Your task to perform on an android device: turn off javascript in the chrome app Image 0: 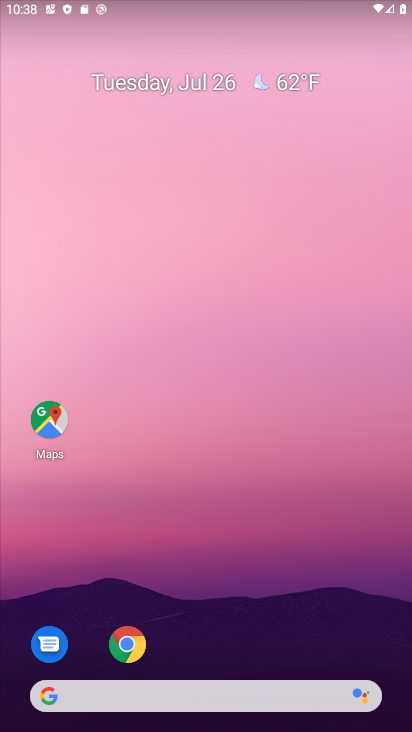
Step 0: click (126, 651)
Your task to perform on an android device: turn off javascript in the chrome app Image 1: 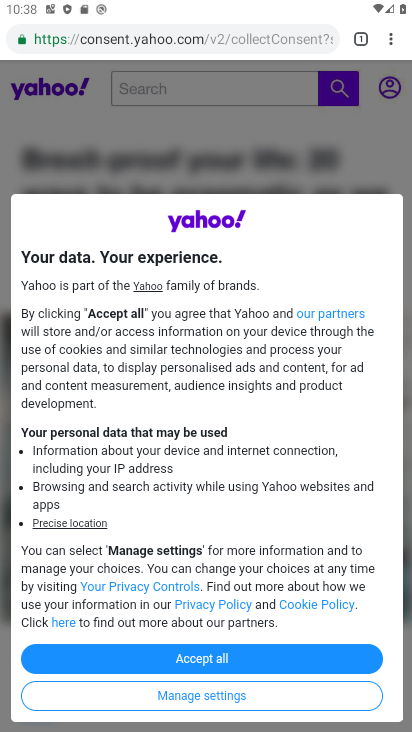
Step 1: click (396, 39)
Your task to perform on an android device: turn off javascript in the chrome app Image 2: 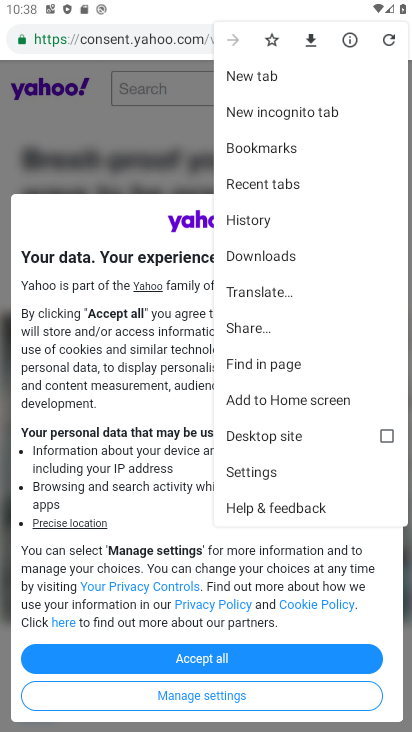
Step 2: click (257, 478)
Your task to perform on an android device: turn off javascript in the chrome app Image 3: 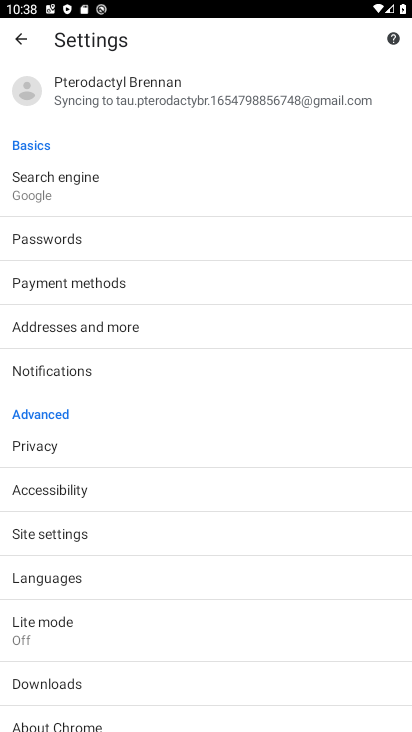
Step 3: click (116, 533)
Your task to perform on an android device: turn off javascript in the chrome app Image 4: 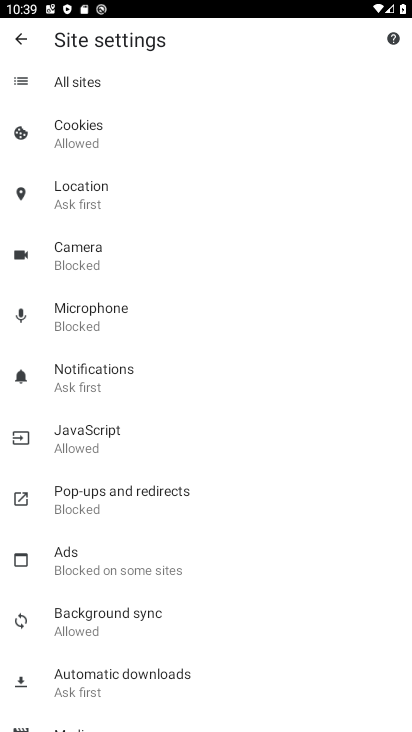
Step 4: click (120, 444)
Your task to perform on an android device: turn off javascript in the chrome app Image 5: 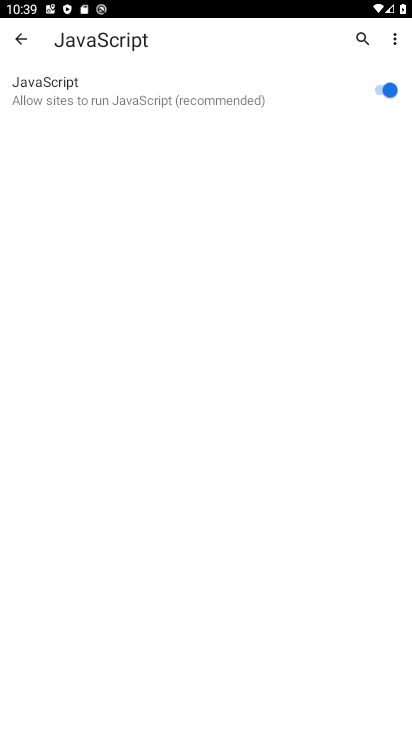
Step 5: click (391, 85)
Your task to perform on an android device: turn off javascript in the chrome app Image 6: 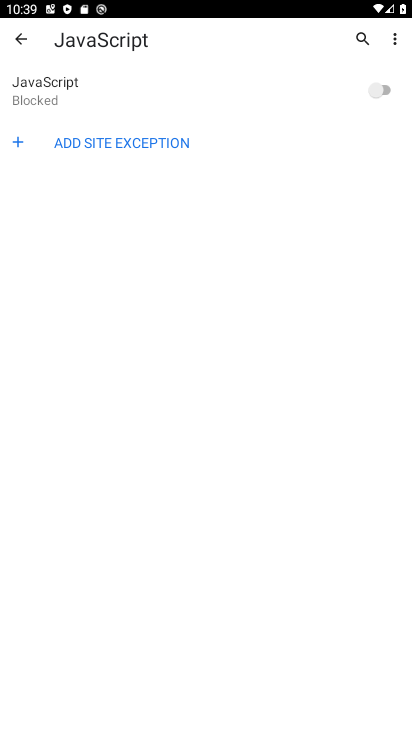
Step 6: task complete